Your task to perform on an android device: create a new album in the google photos Image 0: 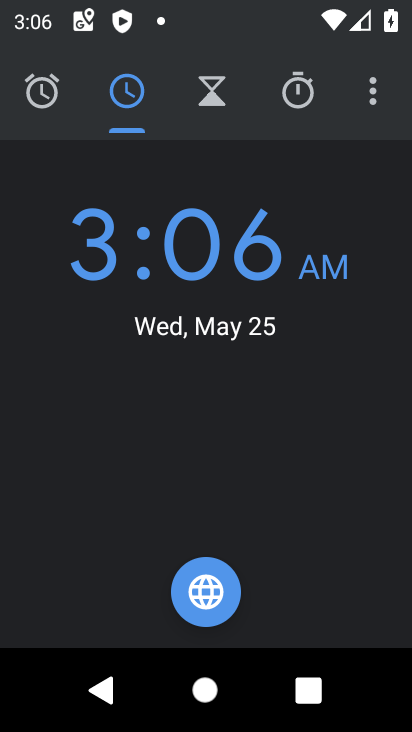
Step 0: press home button
Your task to perform on an android device: create a new album in the google photos Image 1: 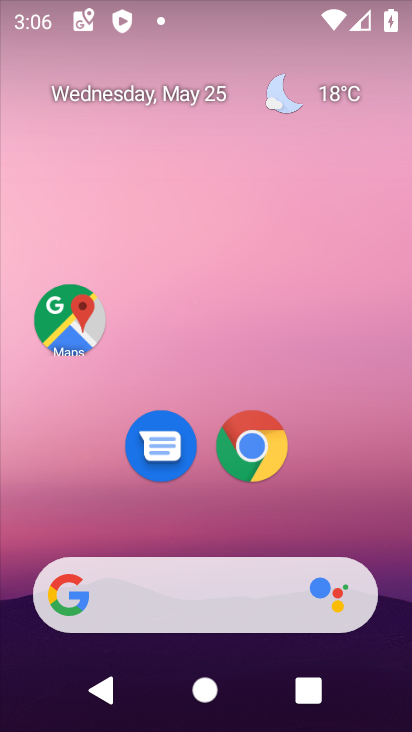
Step 1: drag from (223, 559) to (204, 153)
Your task to perform on an android device: create a new album in the google photos Image 2: 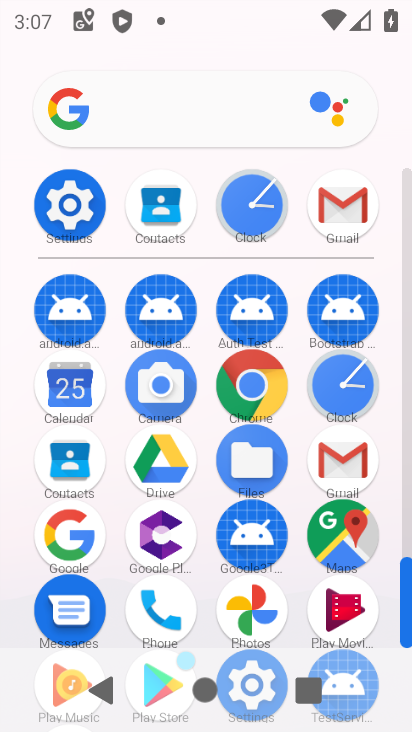
Step 2: click (250, 611)
Your task to perform on an android device: create a new album in the google photos Image 3: 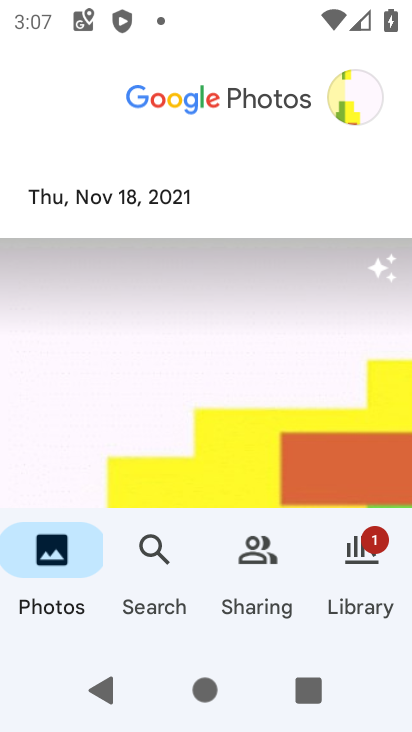
Step 3: click (247, 559)
Your task to perform on an android device: create a new album in the google photos Image 4: 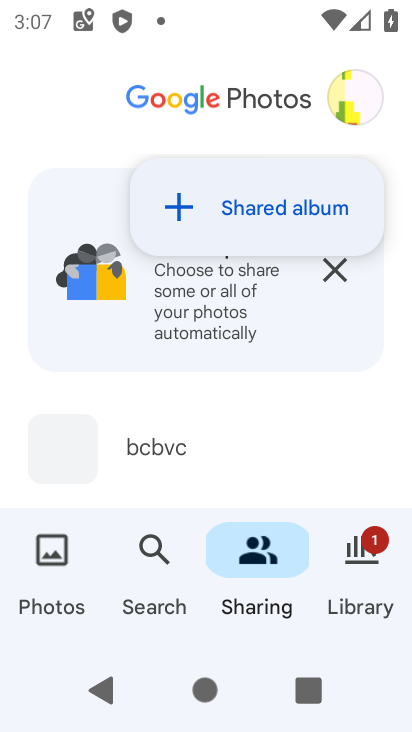
Step 4: click (352, 551)
Your task to perform on an android device: create a new album in the google photos Image 5: 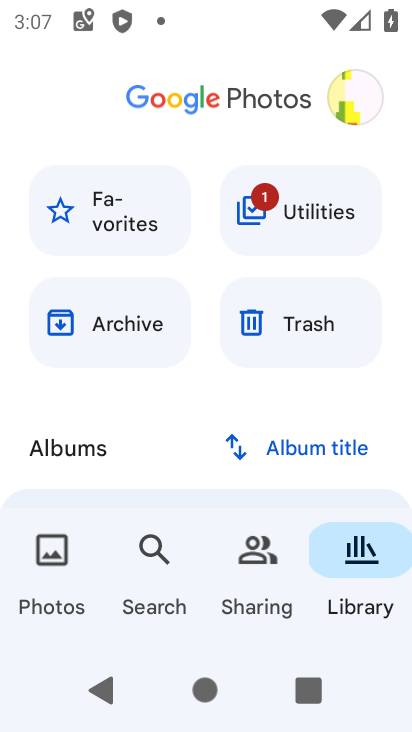
Step 5: drag from (167, 451) to (204, 76)
Your task to perform on an android device: create a new album in the google photos Image 6: 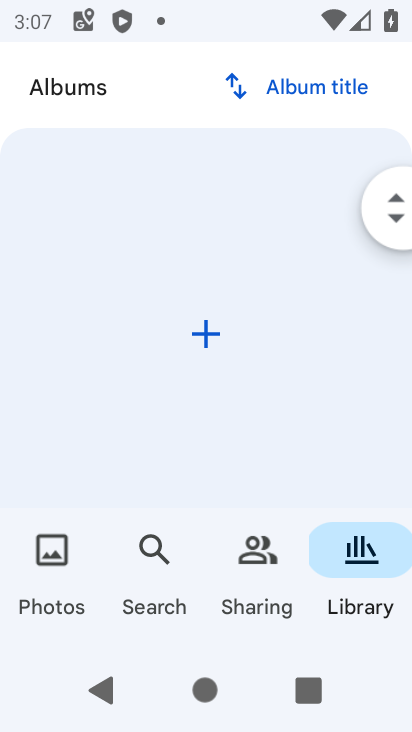
Step 6: click (209, 305)
Your task to perform on an android device: create a new album in the google photos Image 7: 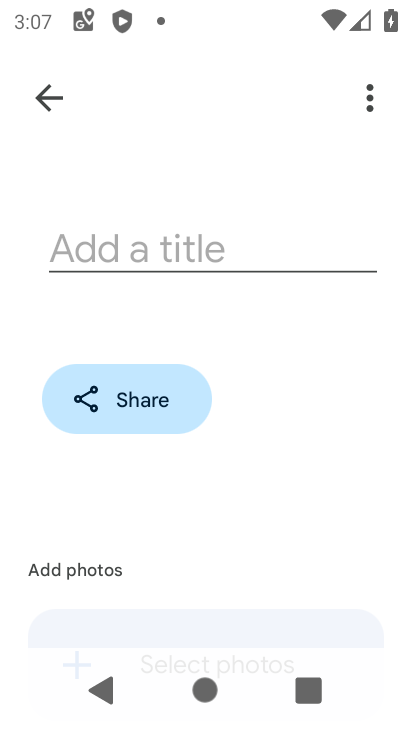
Step 7: click (189, 268)
Your task to perform on an android device: create a new album in the google photos Image 8: 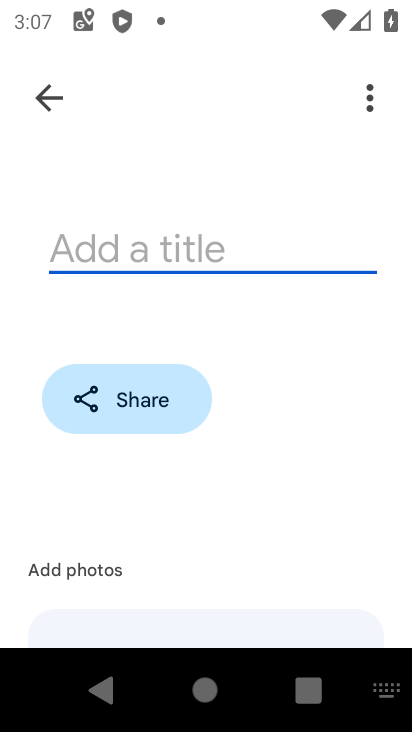
Step 8: type "jxbcvn"
Your task to perform on an android device: create a new album in the google photos Image 9: 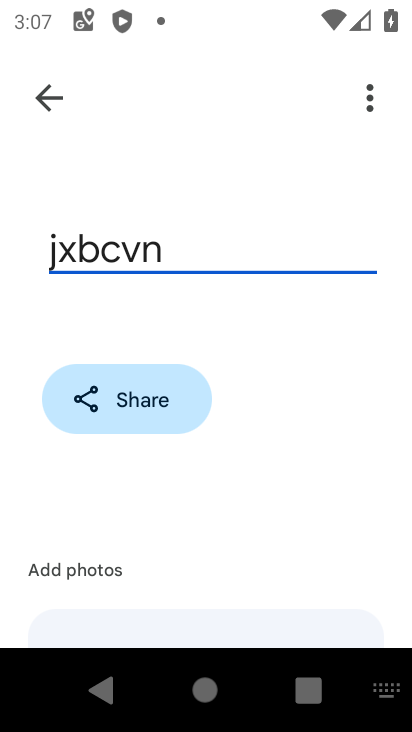
Step 9: drag from (312, 543) to (279, 29)
Your task to perform on an android device: create a new album in the google photos Image 10: 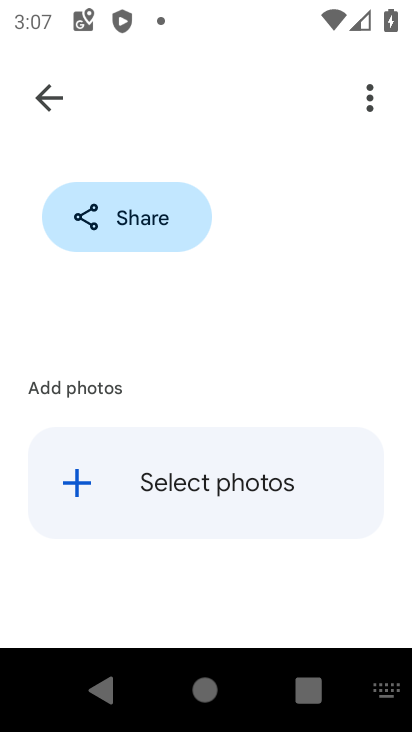
Step 10: click (177, 432)
Your task to perform on an android device: create a new album in the google photos Image 11: 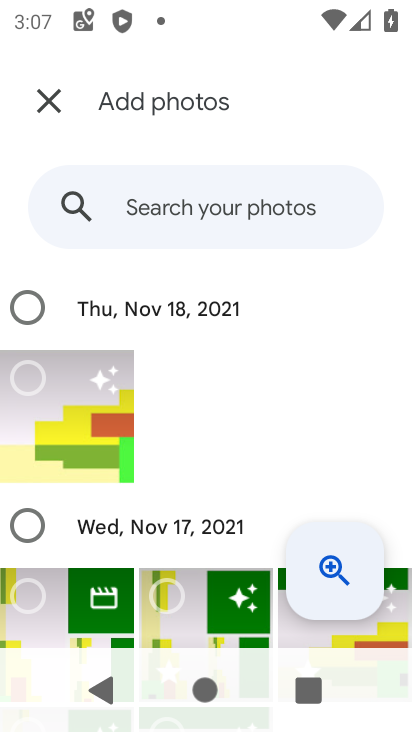
Step 11: click (23, 302)
Your task to perform on an android device: create a new album in the google photos Image 12: 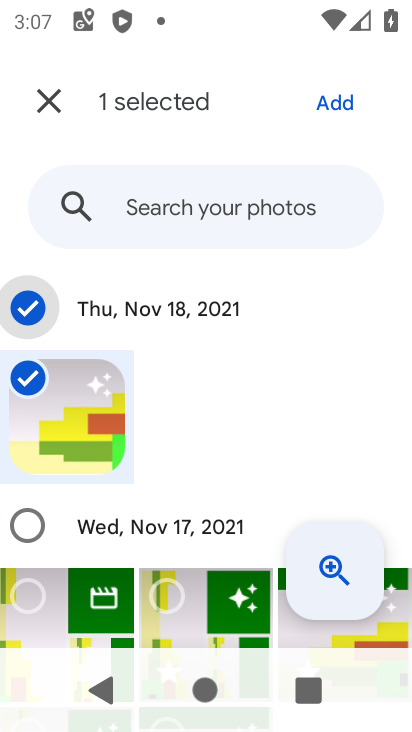
Step 12: click (28, 513)
Your task to perform on an android device: create a new album in the google photos Image 13: 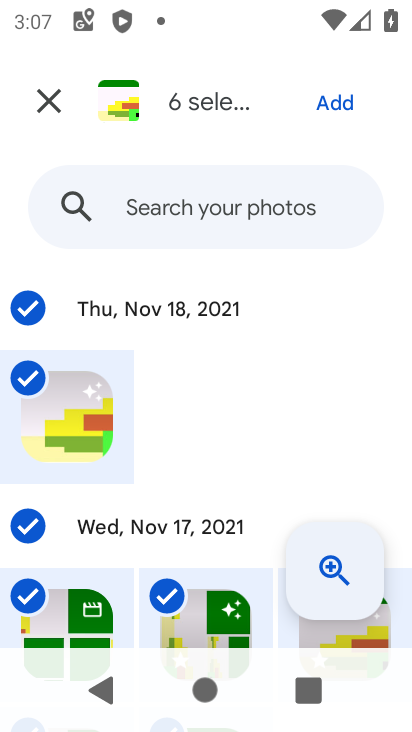
Step 13: click (351, 99)
Your task to perform on an android device: create a new album in the google photos Image 14: 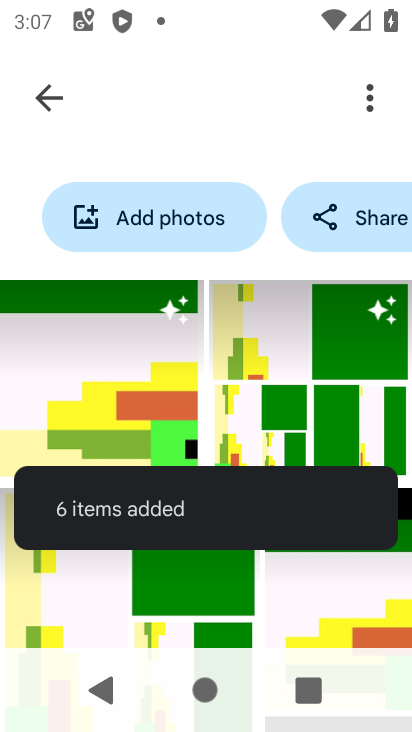
Step 14: task complete